Your task to perform on an android device: turn off priority inbox in the gmail app Image 0: 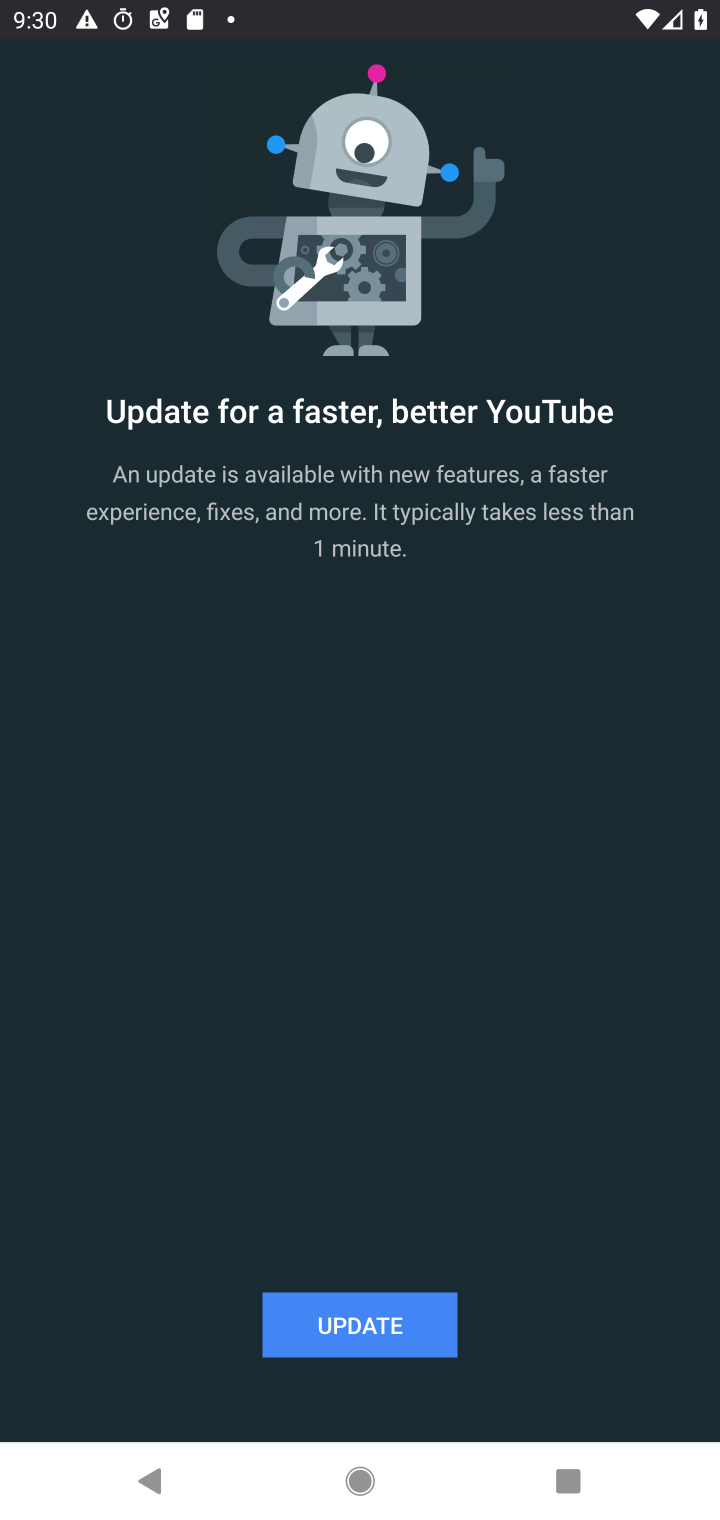
Step 0: press home button
Your task to perform on an android device: turn off priority inbox in the gmail app Image 1: 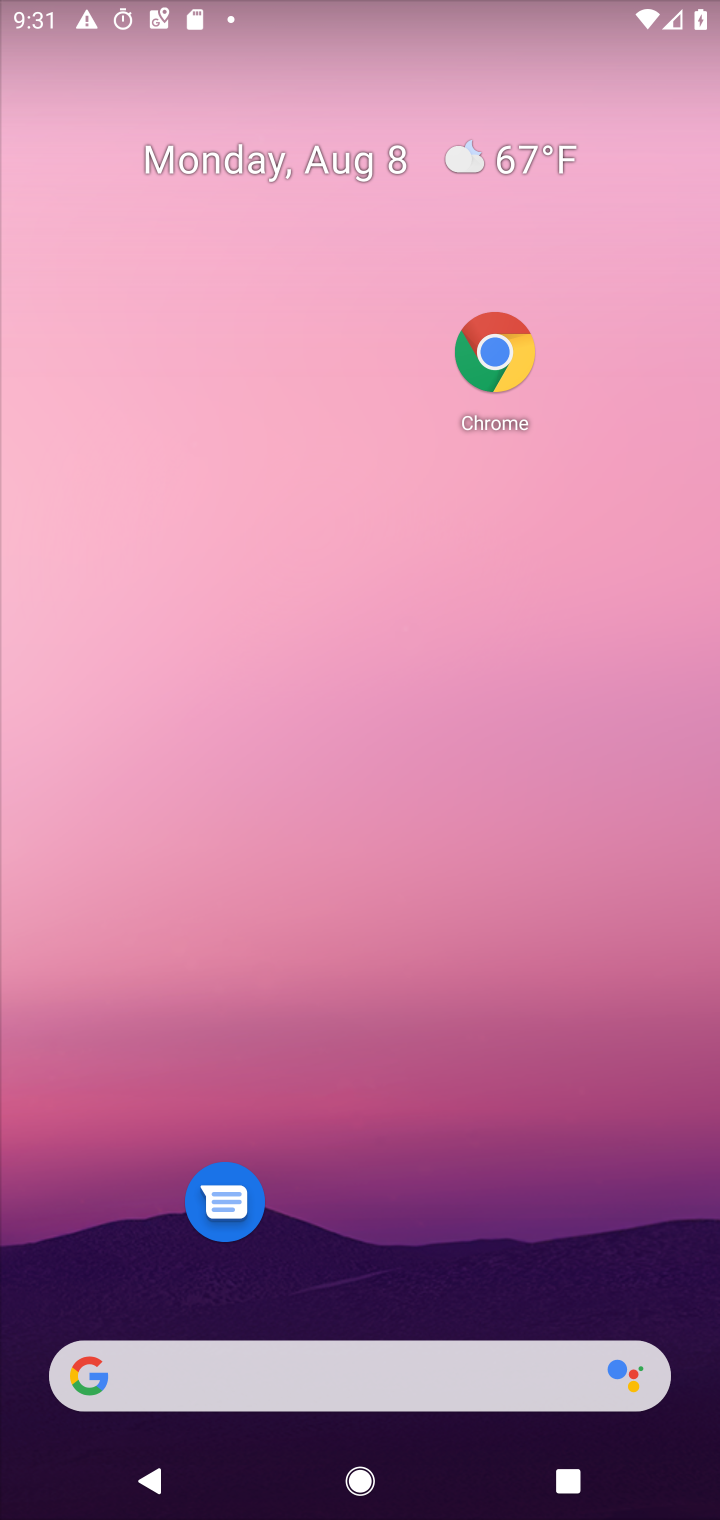
Step 1: drag from (394, 1199) to (323, 243)
Your task to perform on an android device: turn off priority inbox in the gmail app Image 2: 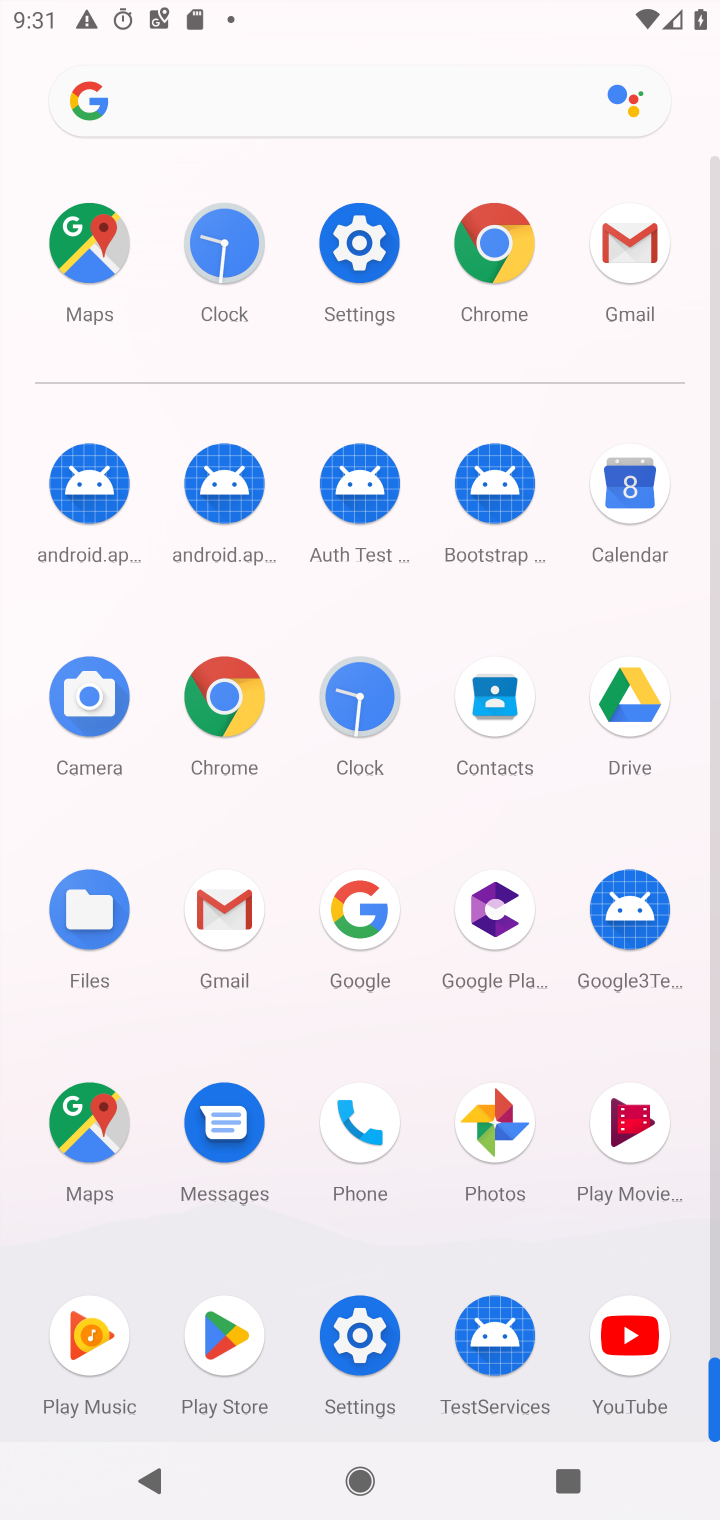
Step 2: click (221, 888)
Your task to perform on an android device: turn off priority inbox in the gmail app Image 3: 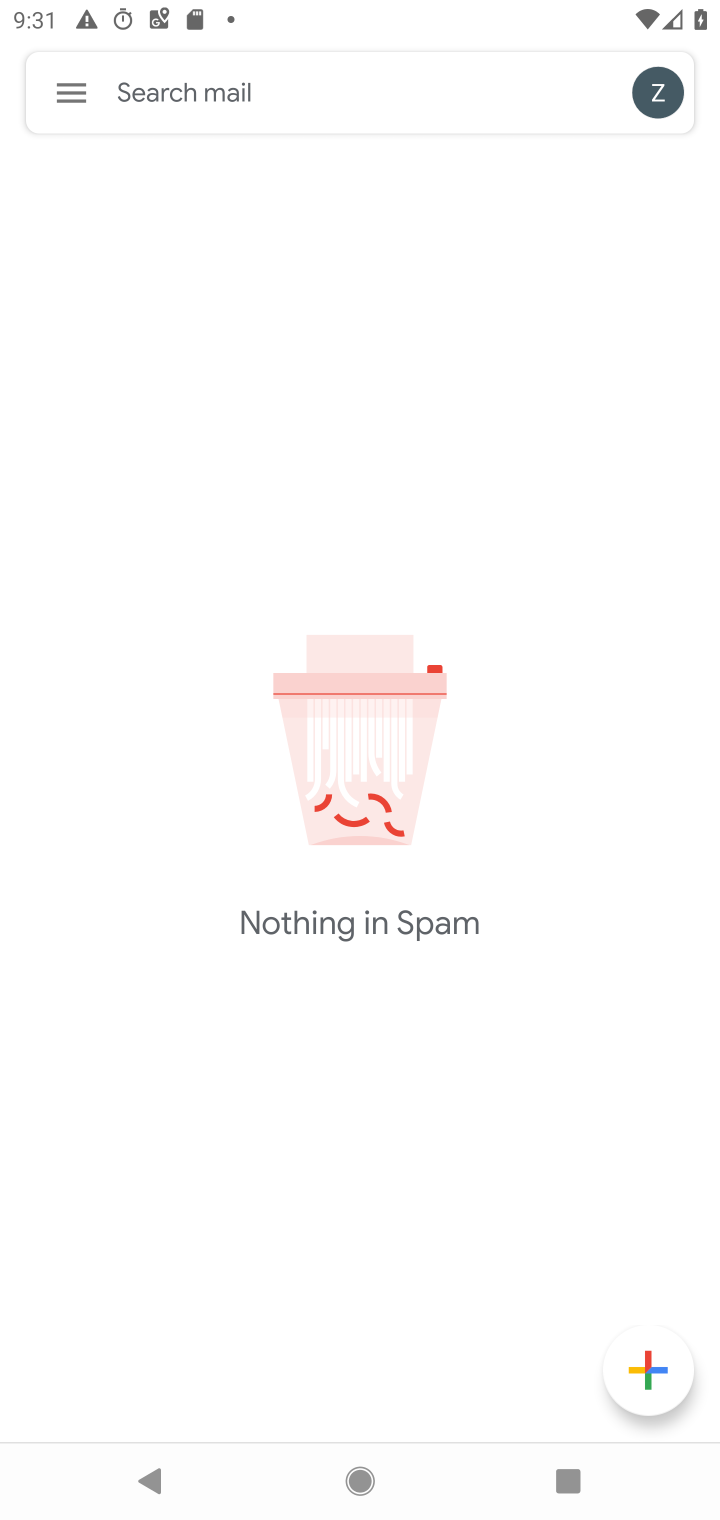
Step 3: click (85, 89)
Your task to perform on an android device: turn off priority inbox in the gmail app Image 4: 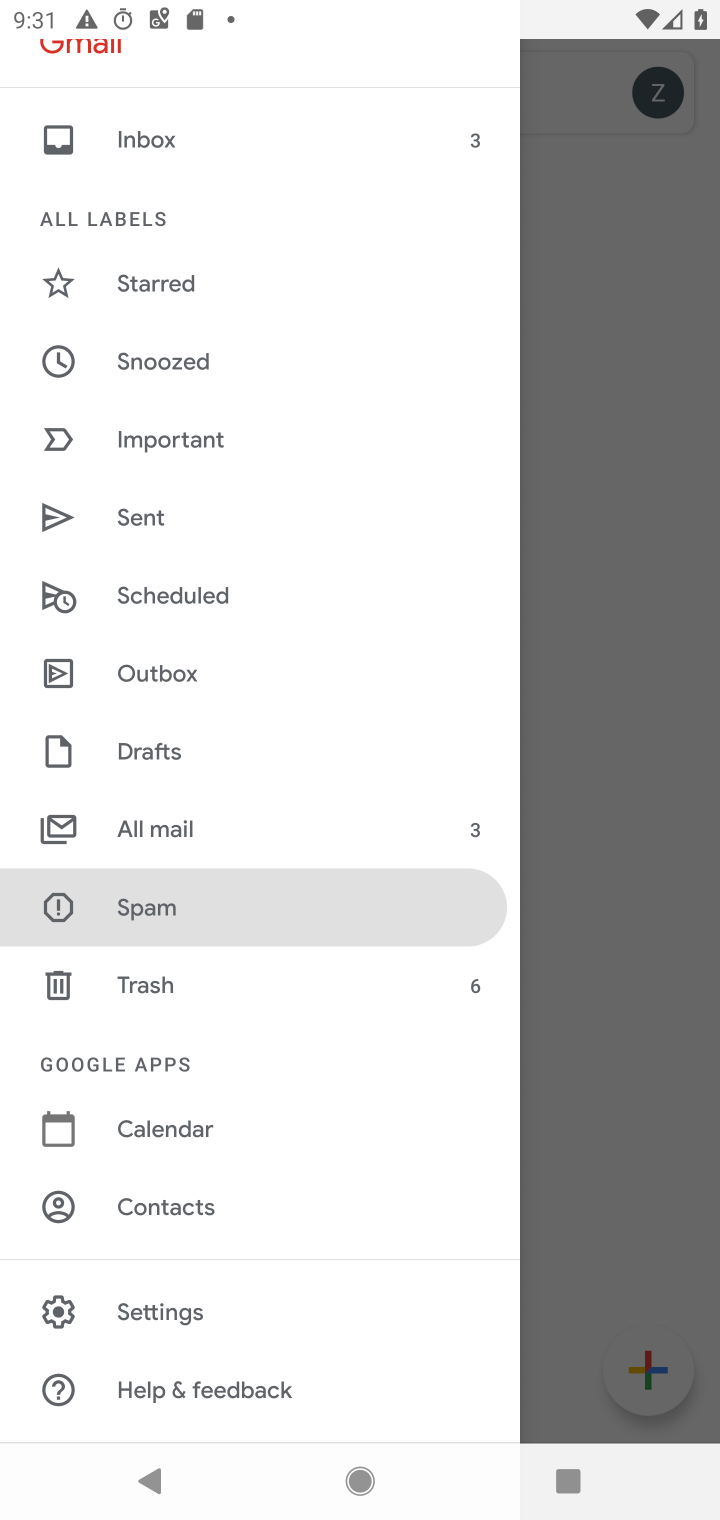
Step 4: click (152, 1308)
Your task to perform on an android device: turn off priority inbox in the gmail app Image 5: 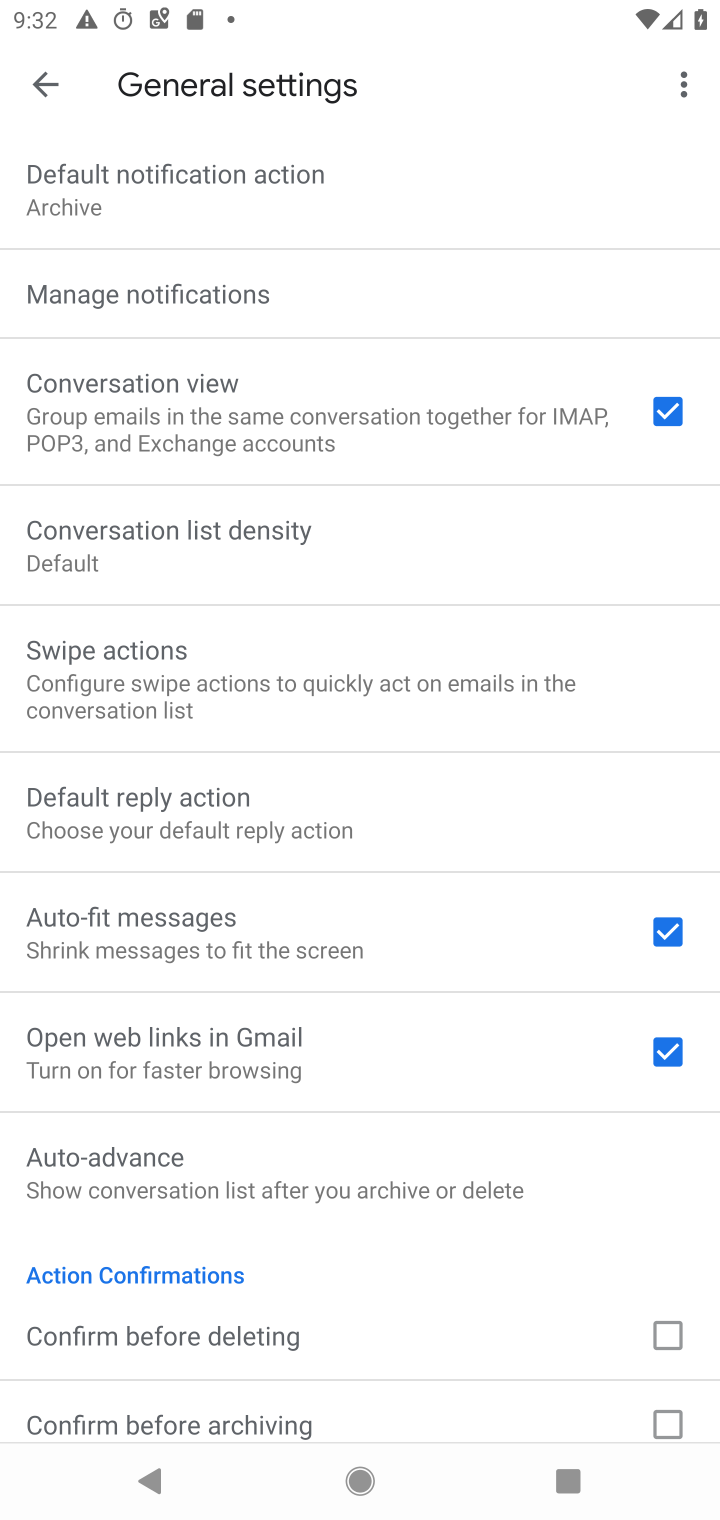
Step 5: click (66, 92)
Your task to perform on an android device: turn off priority inbox in the gmail app Image 6: 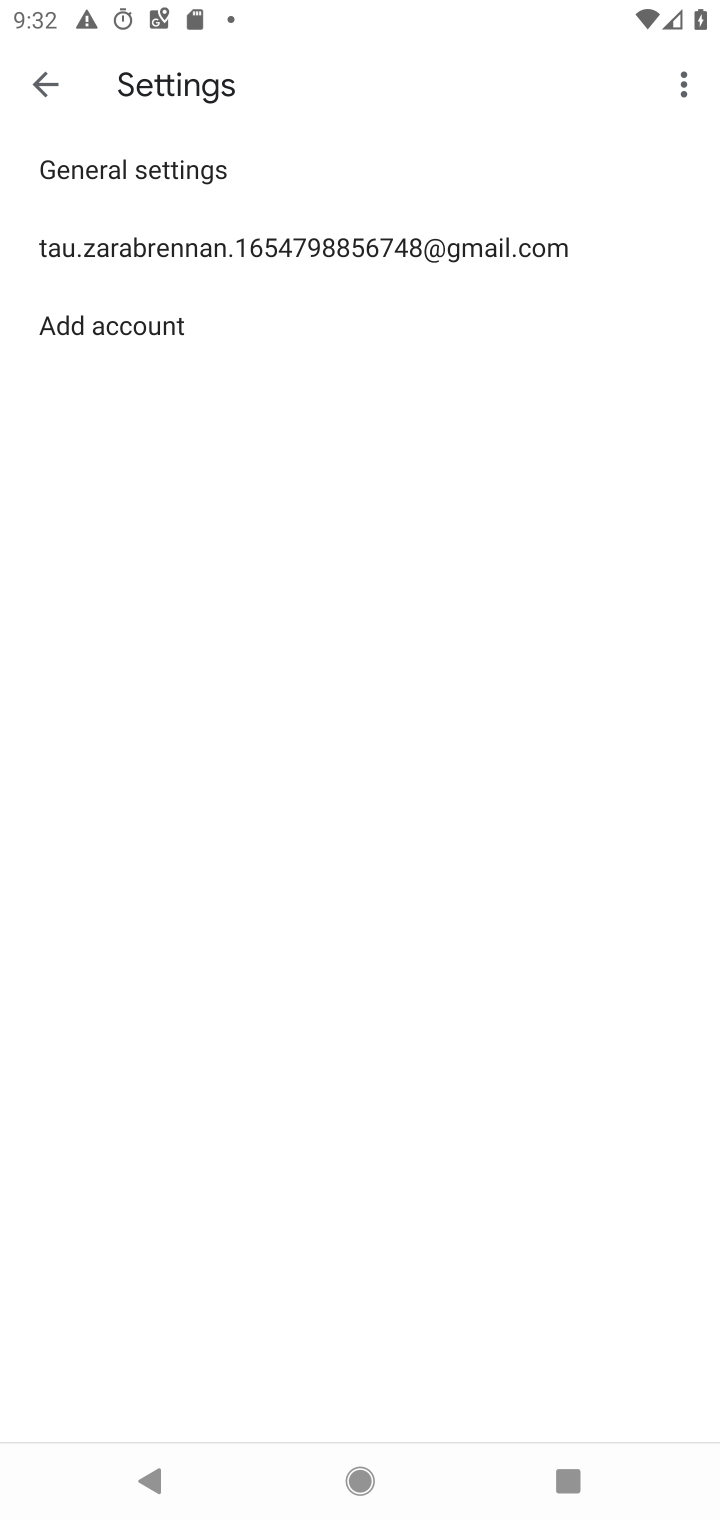
Step 6: click (126, 247)
Your task to perform on an android device: turn off priority inbox in the gmail app Image 7: 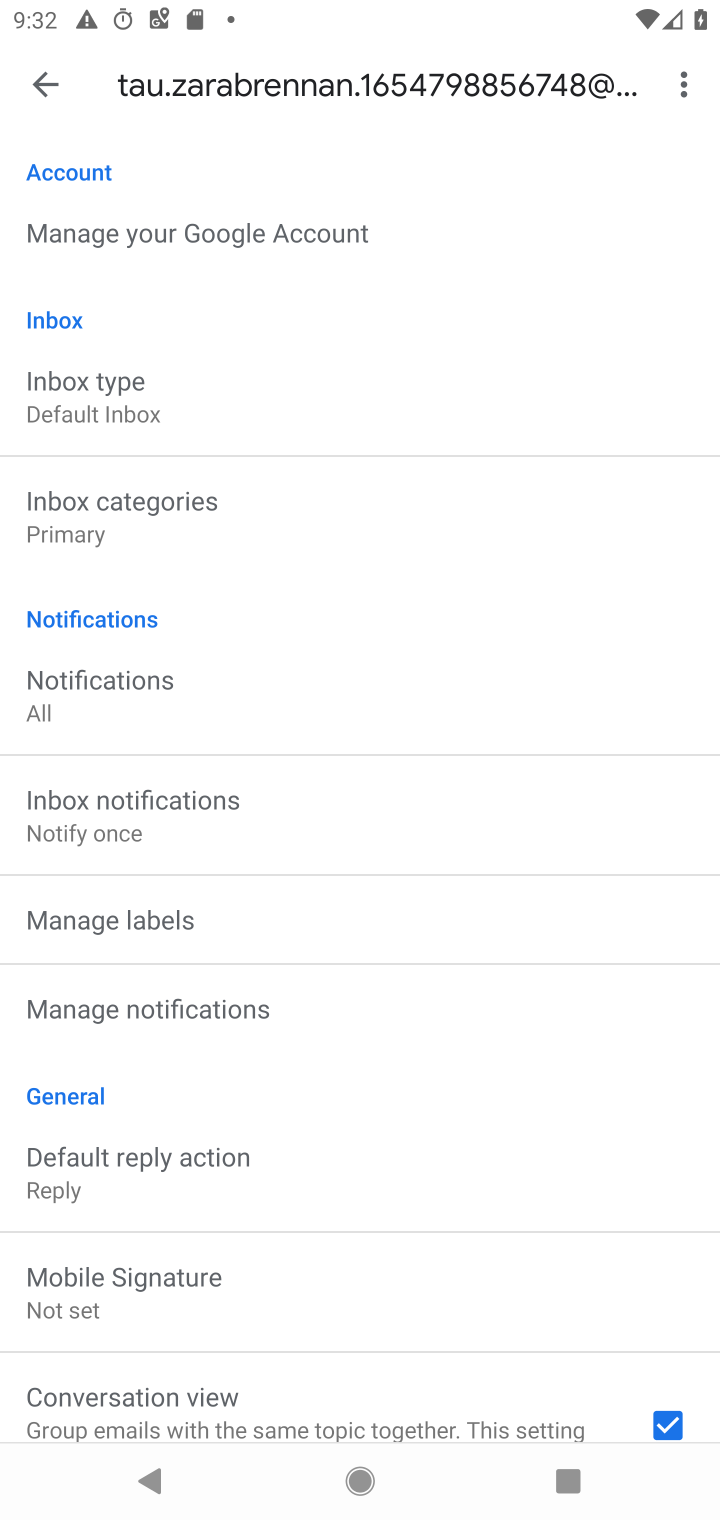
Step 7: task complete